Your task to perform on an android device: Go to Yahoo.com Image 0: 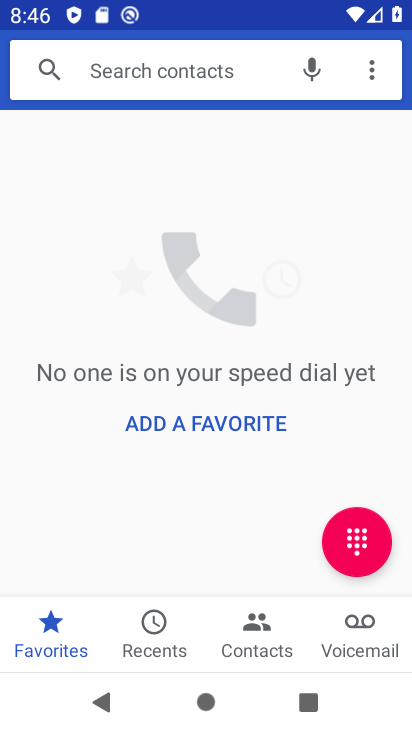
Step 0: press home button
Your task to perform on an android device: Go to Yahoo.com Image 1: 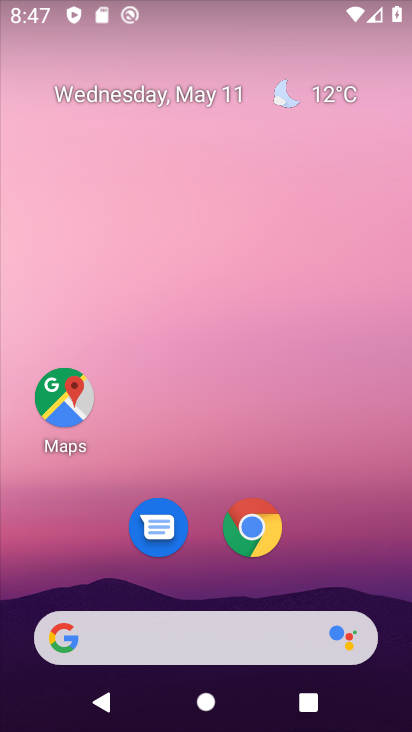
Step 1: click (257, 533)
Your task to perform on an android device: Go to Yahoo.com Image 2: 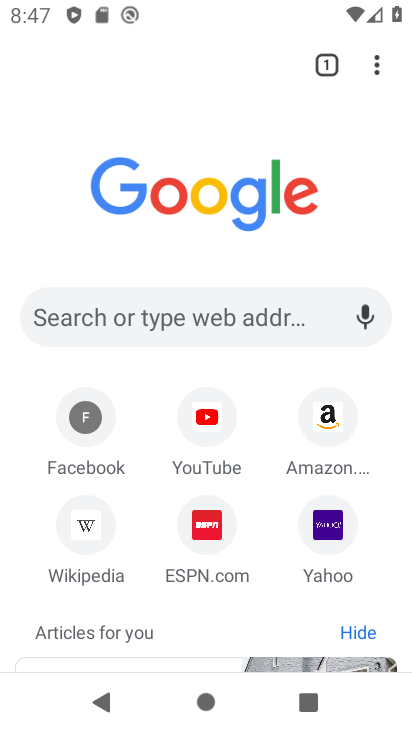
Step 2: click (331, 518)
Your task to perform on an android device: Go to Yahoo.com Image 3: 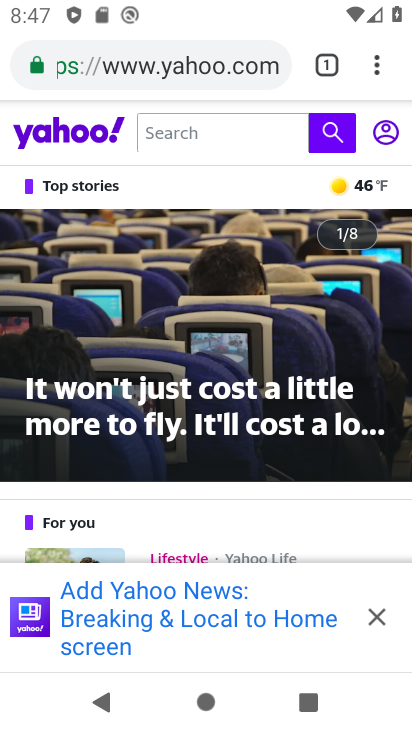
Step 3: task complete